Your task to perform on an android device: move a message to another label in the gmail app Image 0: 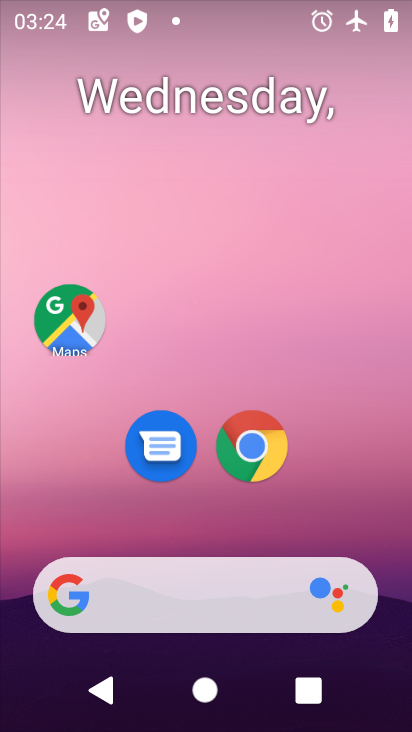
Step 0: drag from (196, 494) to (196, 163)
Your task to perform on an android device: move a message to another label in the gmail app Image 1: 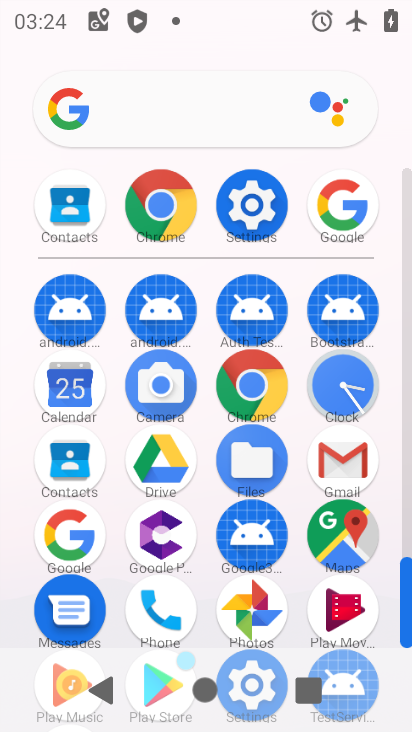
Step 1: click (338, 472)
Your task to perform on an android device: move a message to another label in the gmail app Image 2: 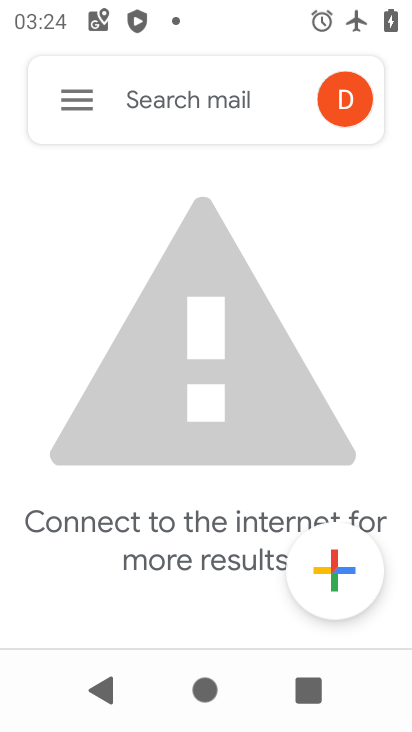
Step 2: click (74, 89)
Your task to perform on an android device: move a message to another label in the gmail app Image 3: 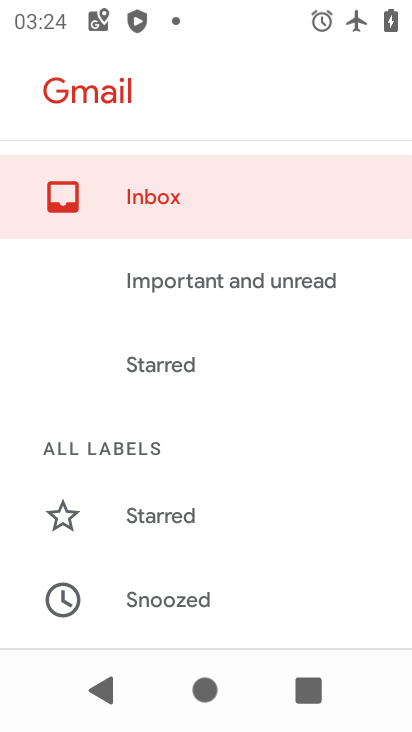
Step 3: drag from (203, 493) to (208, 226)
Your task to perform on an android device: move a message to another label in the gmail app Image 4: 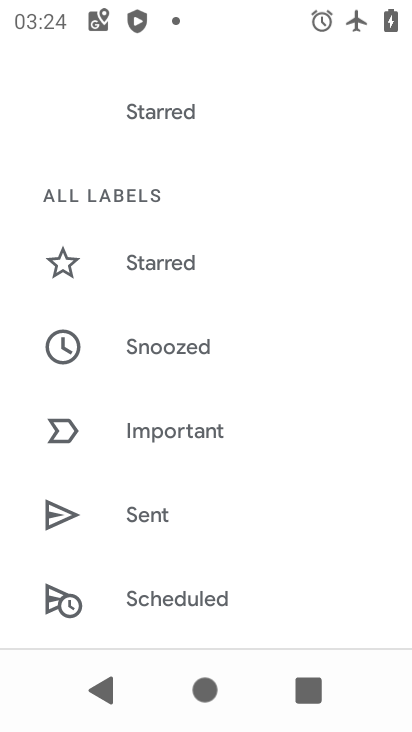
Step 4: drag from (240, 490) to (223, 262)
Your task to perform on an android device: move a message to another label in the gmail app Image 5: 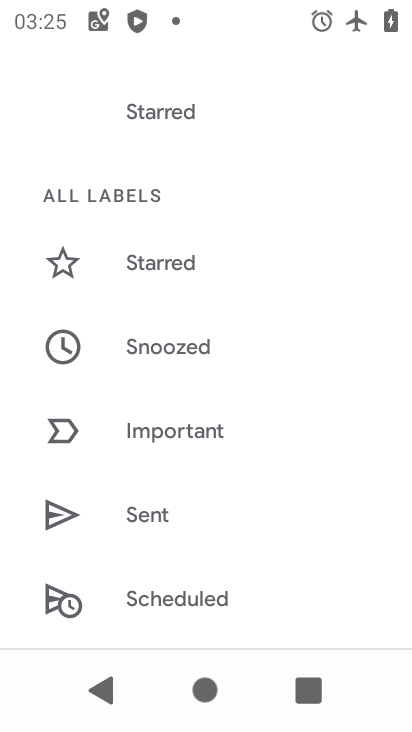
Step 5: drag from (212, 551) to (220, 345)
Your task to perform on an android device: move a message to another label in the gmail app Image 6: 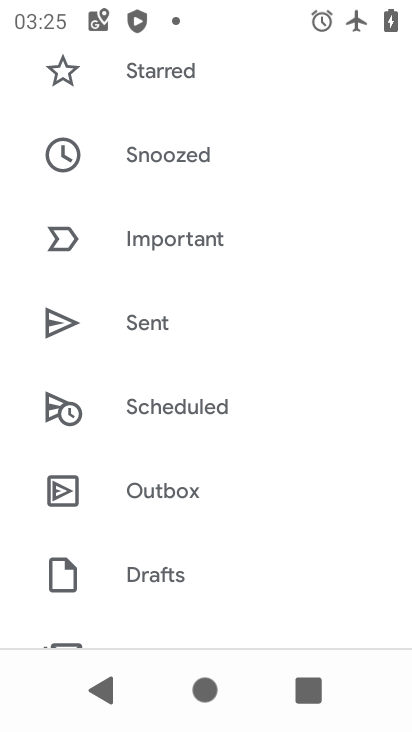
Step 6: drag from (198, 546) to (198, 287)
Your task to perform on an android device: move a message to another label in the gmail app Image 7: 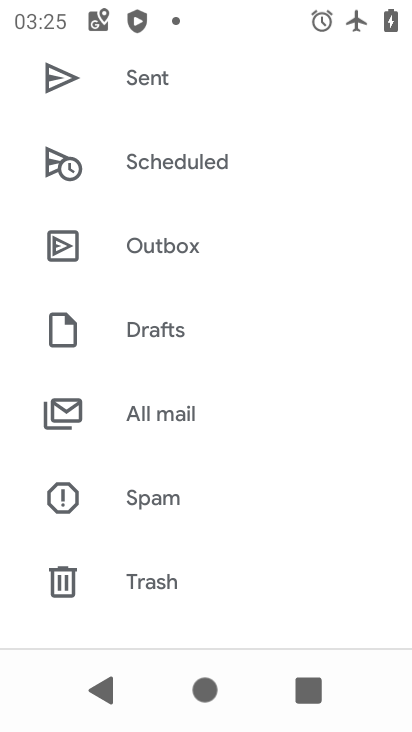
Step 7: click (202, 423)
Your task to perform on an android device: move a message to another label in the gmail app Image 8: 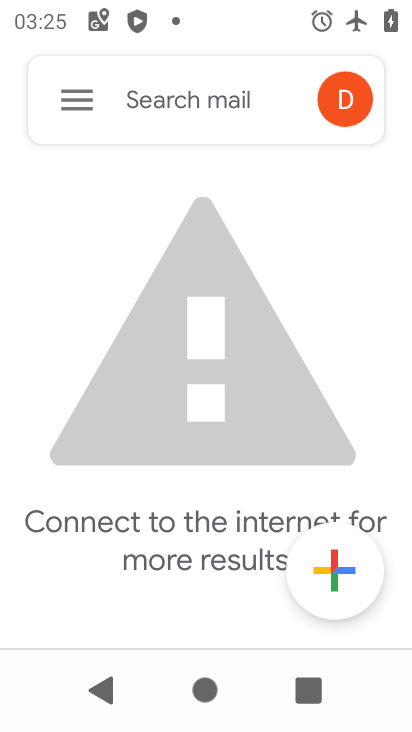
Step 8: task complete